Your task to perform on an android device: open a bookmark in the chrome app Image 0: 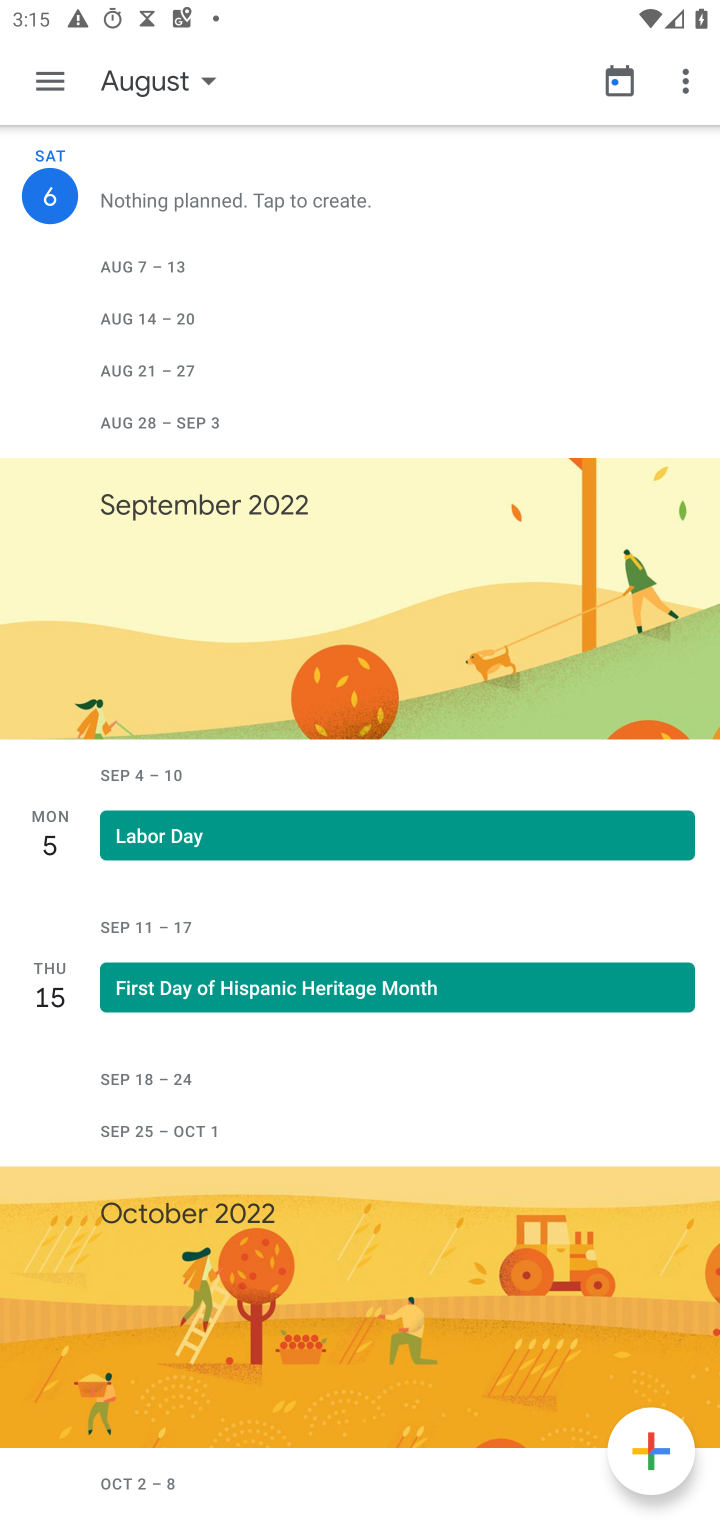
Step 0: press home button
Your task to perform on an android device: open a bookmark in the chrome app Image 1: 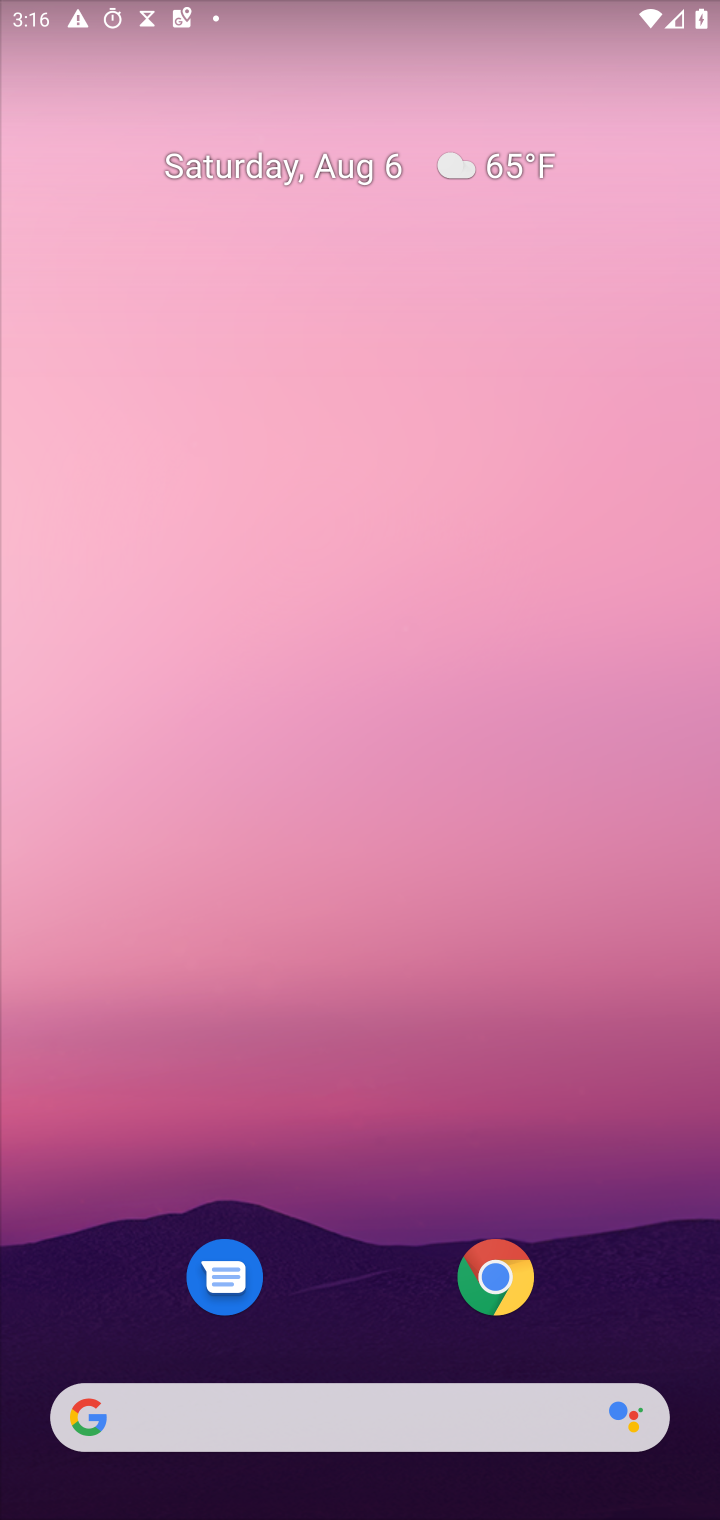
Step 1: drag from (396, 1407) to (485, 280)
Your task to perform on an android device: open a bookmark in the chrome app Image 2: 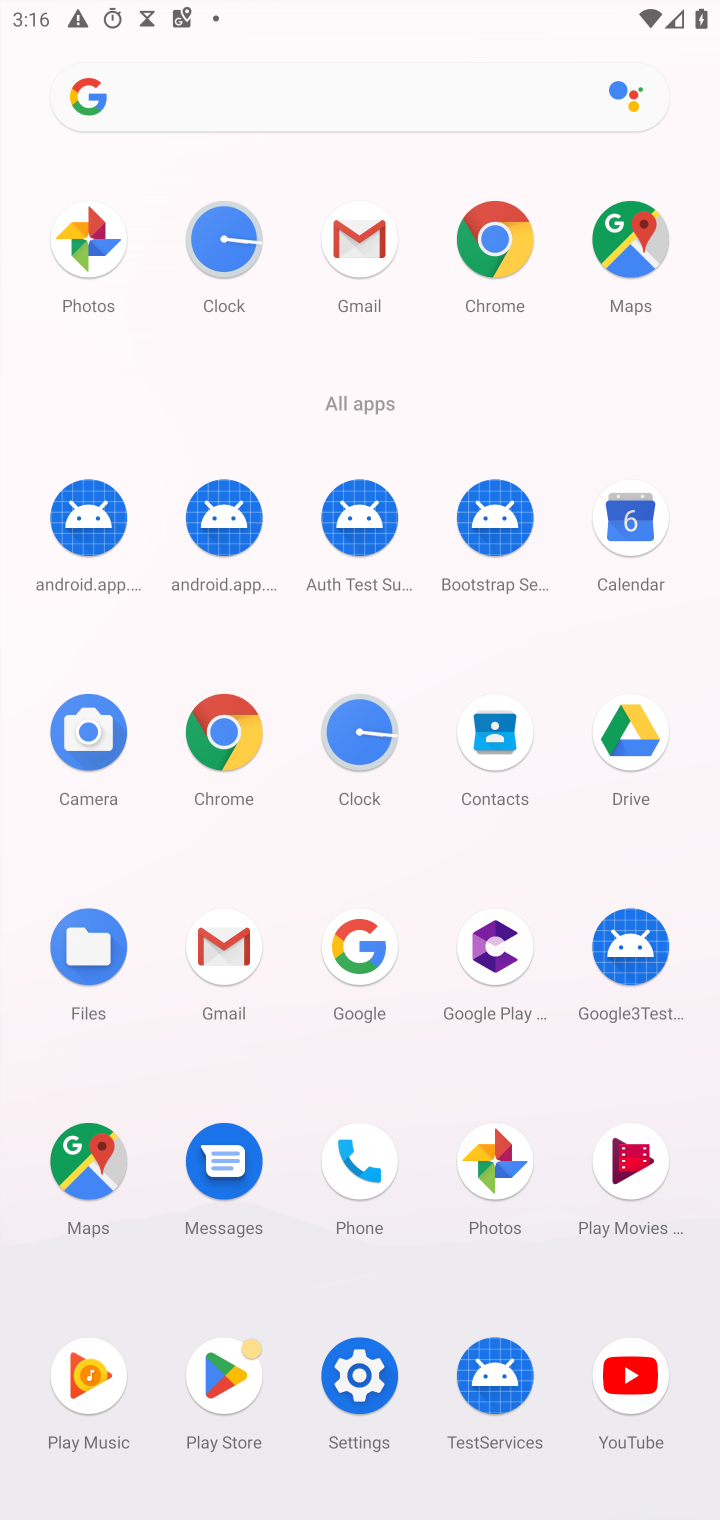
Step 2: click (233, 708)
Your task to perform on an android device: open a bookmark in the chrome app Image 3: 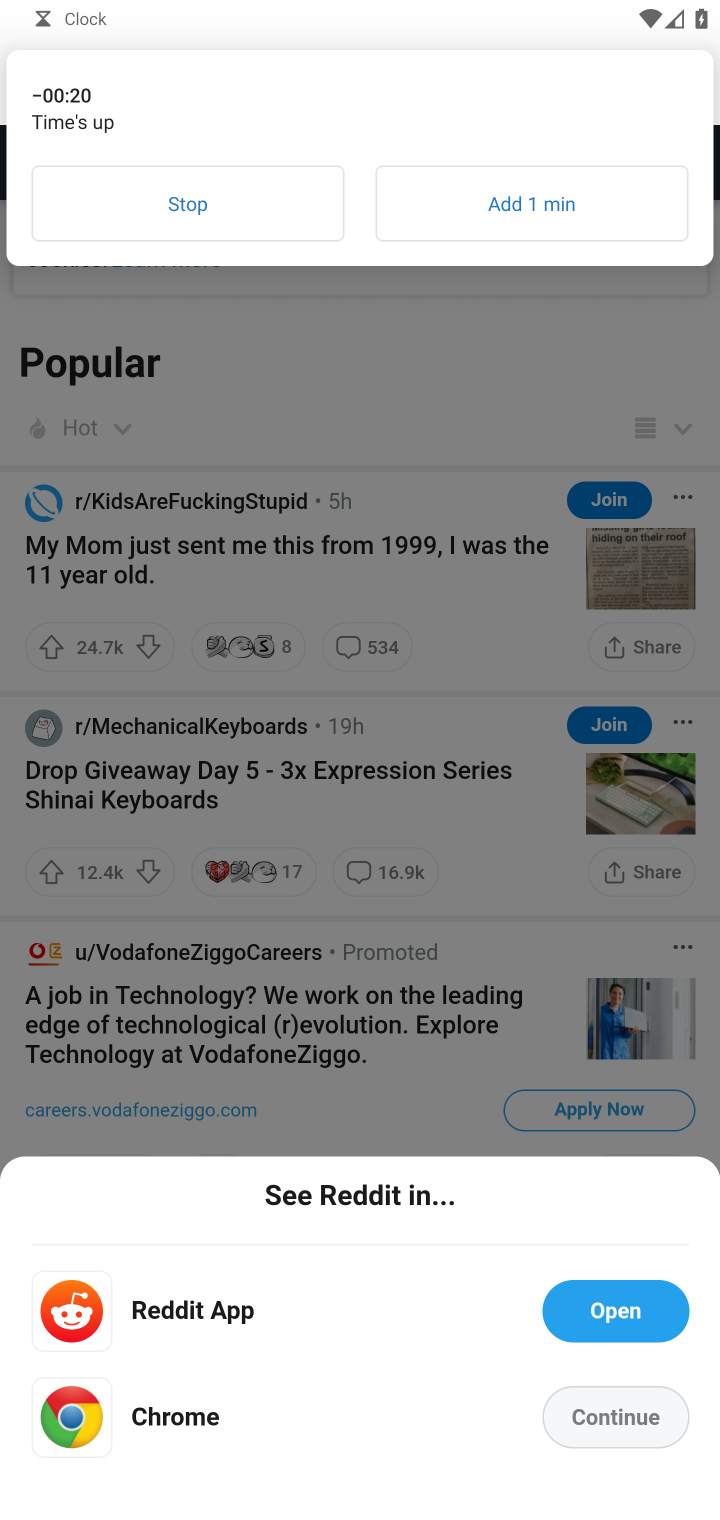
Step 3: click (225, 203)
Your task to perform on an android device: open a bookmark in the chrome app Image 4: 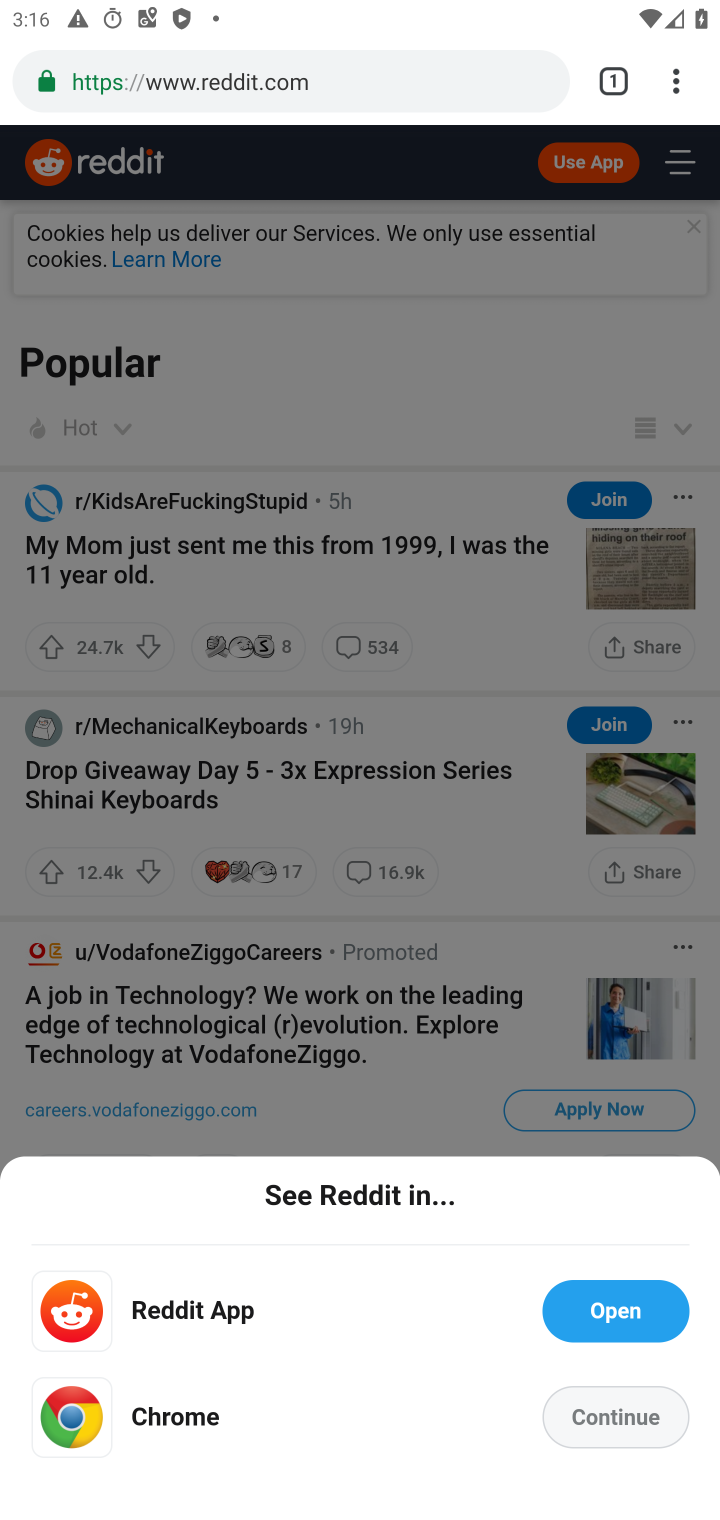
Step 4: click (682, 80)
Your task to perform on an android device: open a bookmark in the chrome app Image 5: 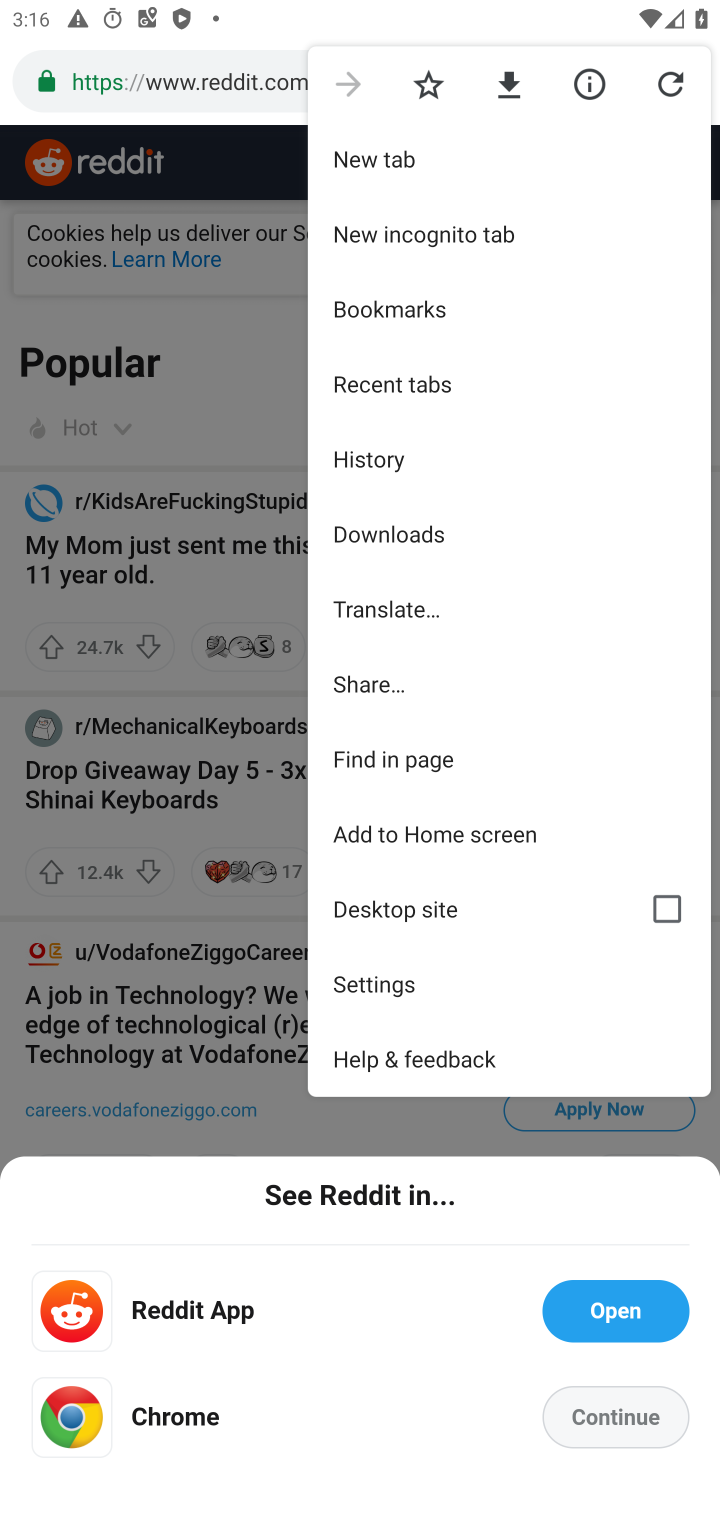
Step 5: click (441, 297)
Your task to perform on an android device: open a bookmark in the chrome app Image 6: 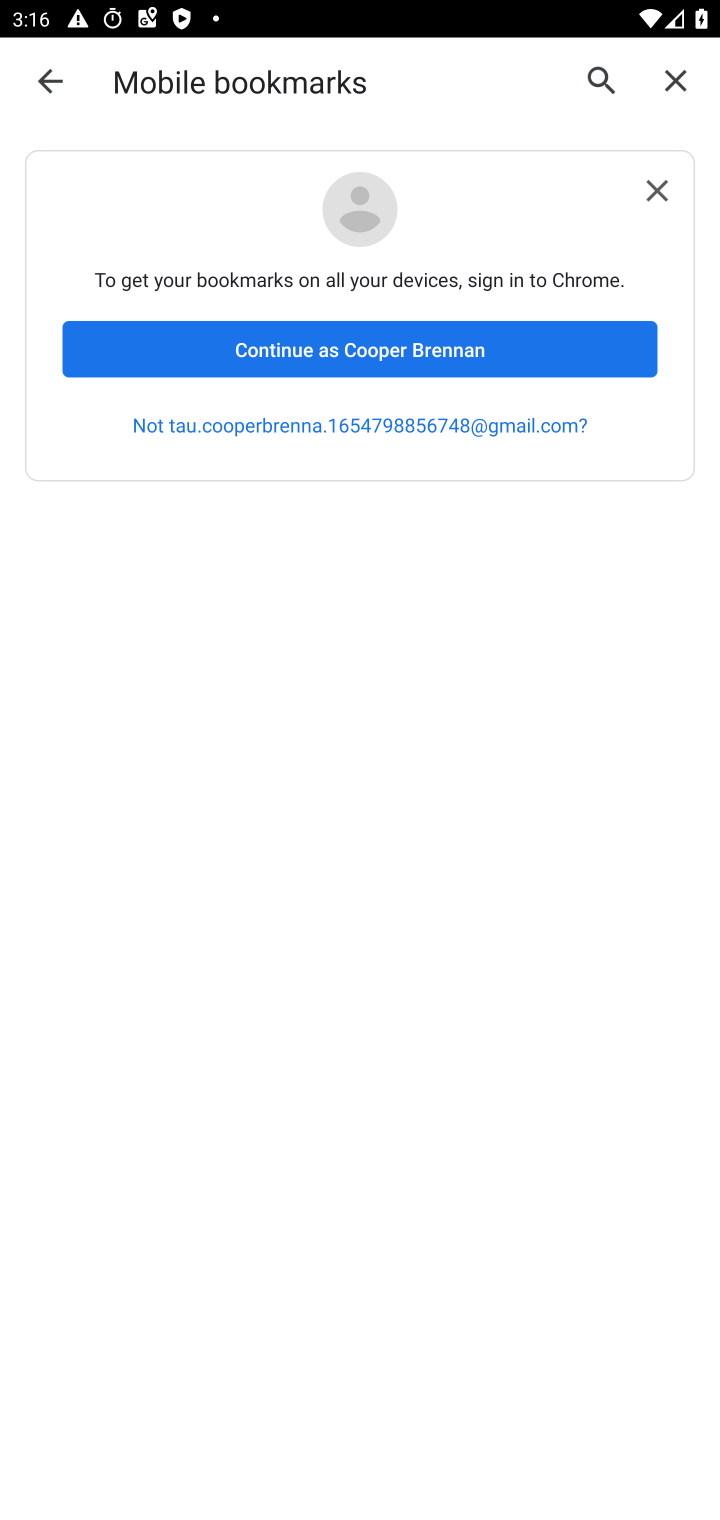
Step 6: task complete